Your task to perform on an android device: Open CNN.com Image 0: 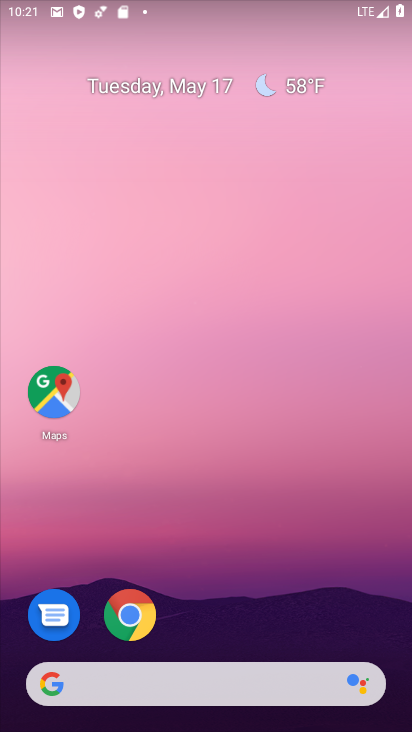
Step 0: click (142, 616)
Your task to perform on an android device: Open CNN.com Image 1: 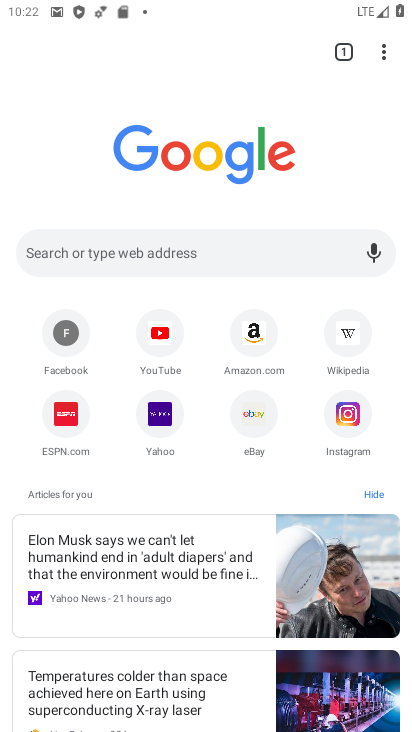
Step 1: click (189, 239)
Your task to perform on an android device: Open CNN.com Image 2: 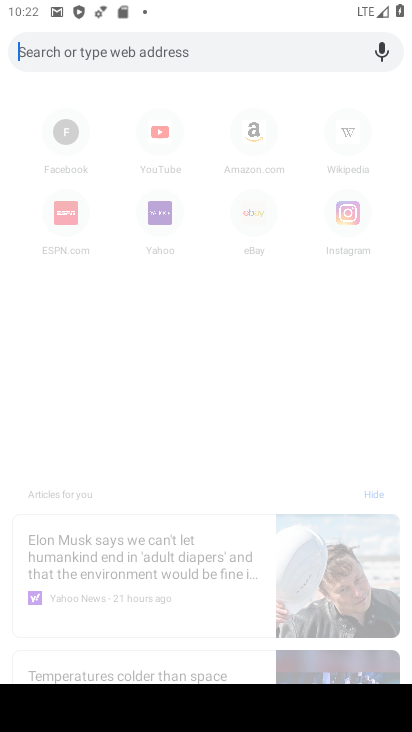
Step 2: type "CNN.com"
Your task to perform on an android device: Open CNN.com Image 3: 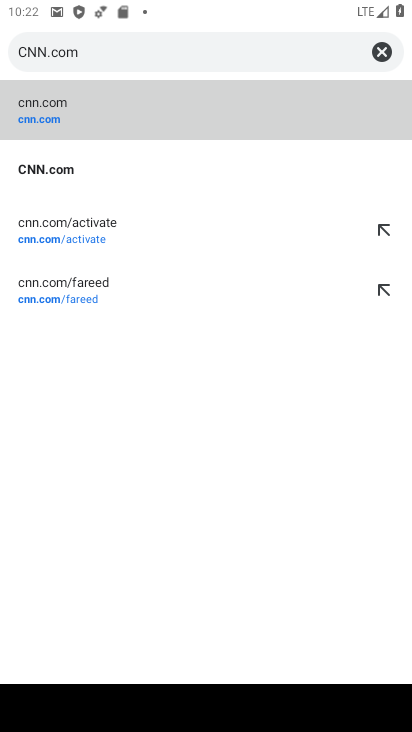
Step 3: click (77, 117)
Your task to perform on an android device: Open CNN.com Image 4: 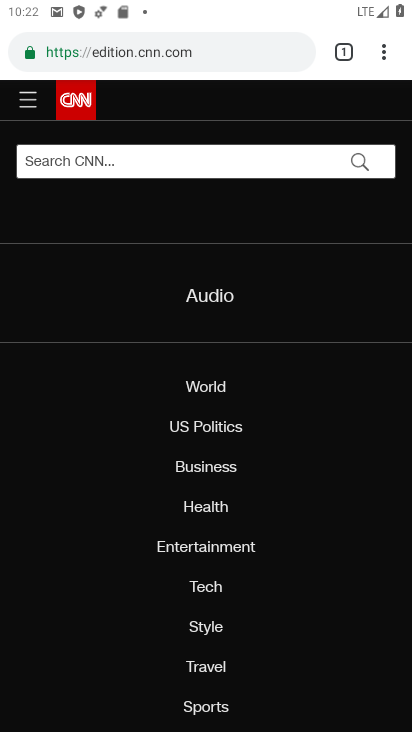
Step 4: task complete